Your task to perform on an android device: turn off notifications settings in the gmail app Image 0: 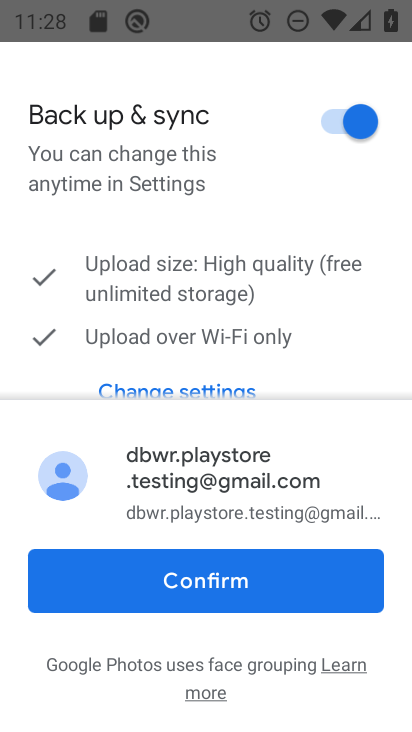
Step 0: press home button
Your task to perform on an android device: turn off notifications settings in the gmail app Image 1: 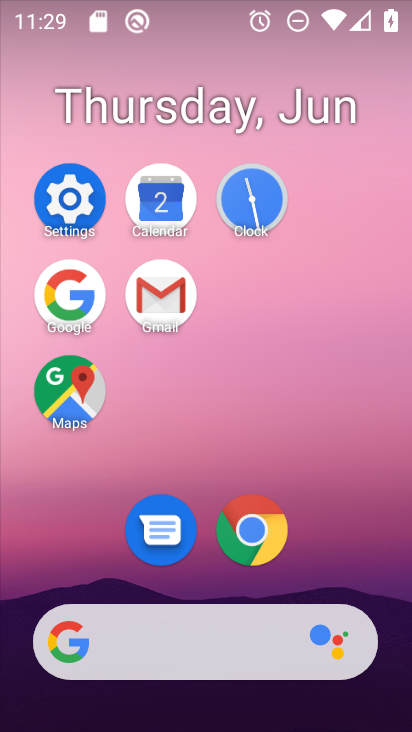
Step 1: click (170, 304)
Your task to perform on an android device: turn off notifications settings in the gmail app Image 2: 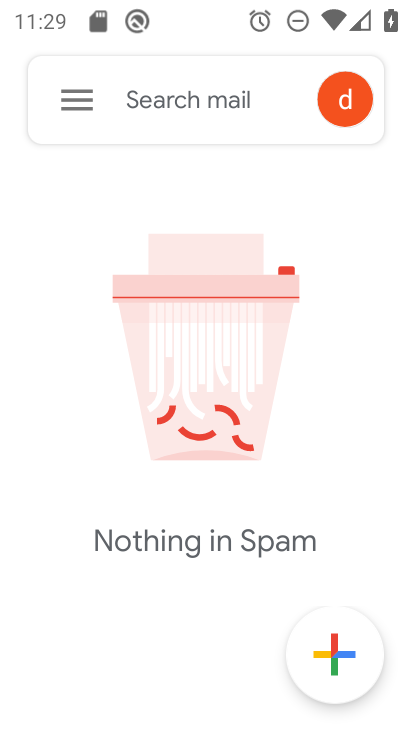
Step 2: click (52, 96)
Your task to perform on an android device: turn off notifications settings in the gmail app Image 3: 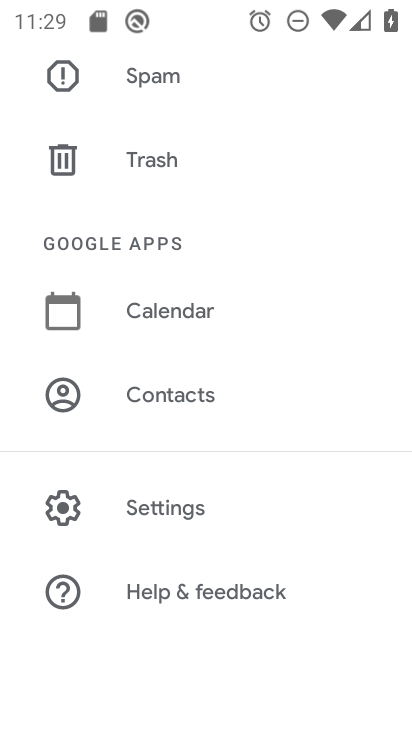
Step 3: click (239, 497)
Your task to perform on an android device: turn off notifications settings in the gmail app Image 4: 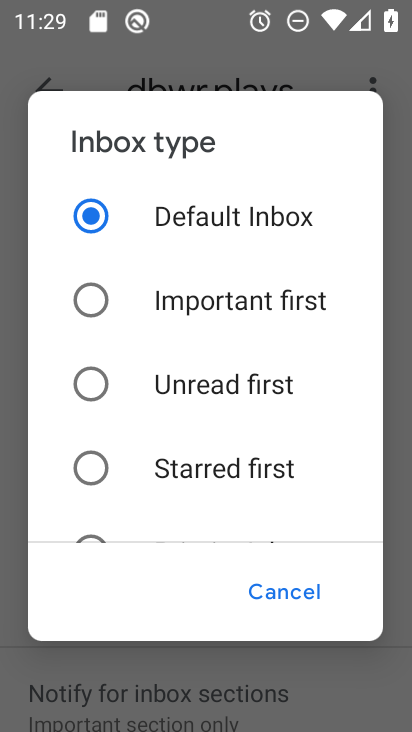
Step 4: click (312, 602)
Your task to perform on an android device: turn off notifications settings in the gmail app Image 5: 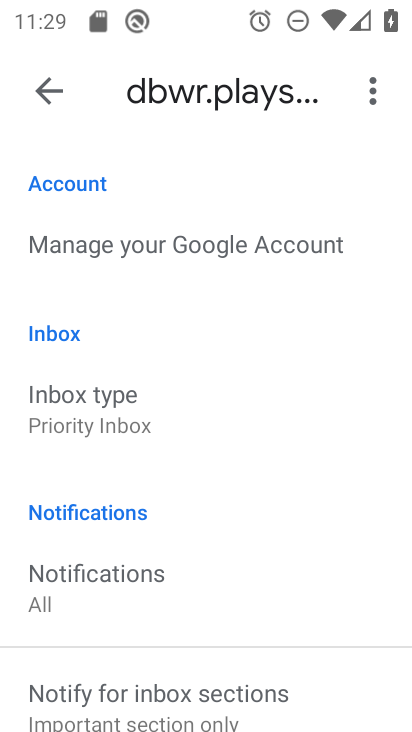
Step 5: click (194, 548)
Your task to perform on an android device: turn off notifications settings in the gmail app Image 6: 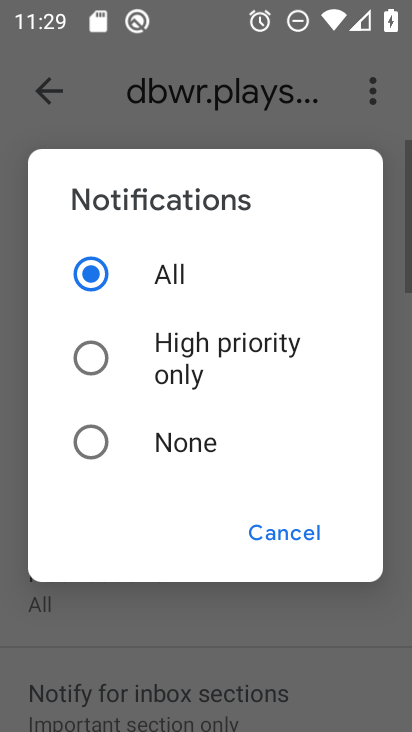
Step 6: click (131, 432)
Your task to perform on an android device: turn off notifications settings in the gmail app Image 7: 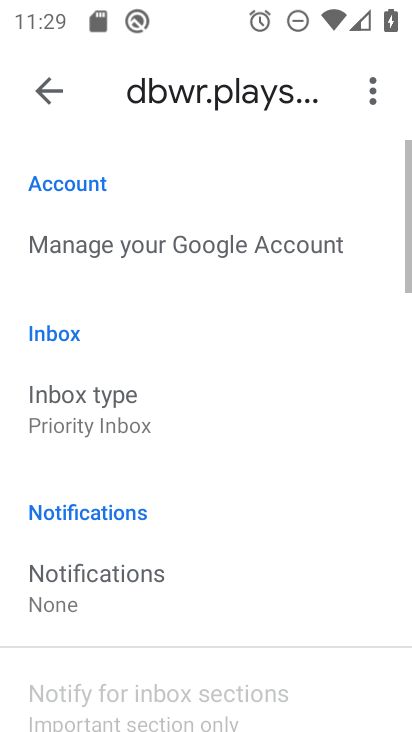
Step 7: task complete